Your task to perform on an android device: change notification settings in the gmail app Image 0: 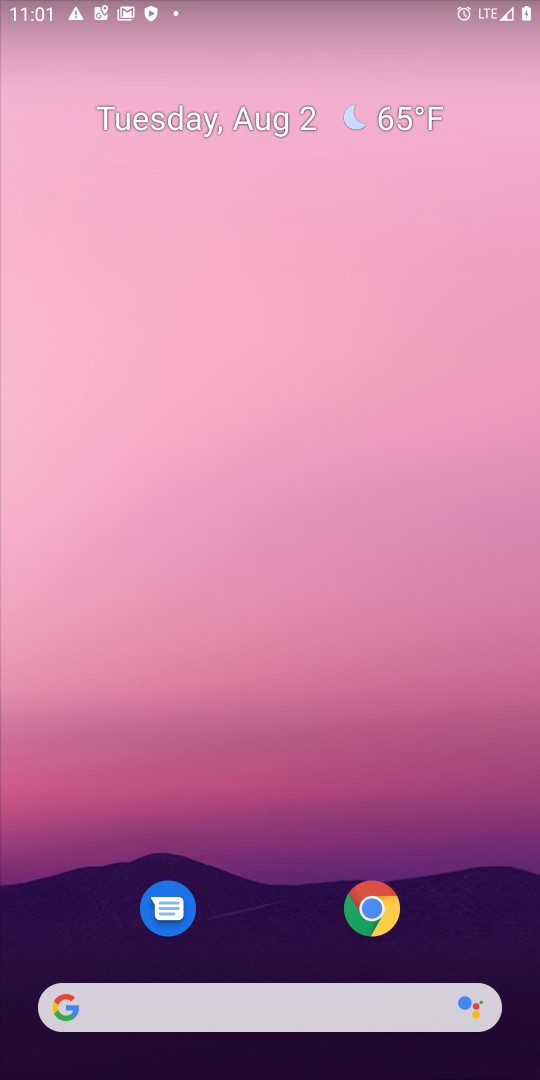
Step 0: drag from (246, 698) to (242, 181)
Your task to perform on an android device: change notification settings in the gmail app Image 1: 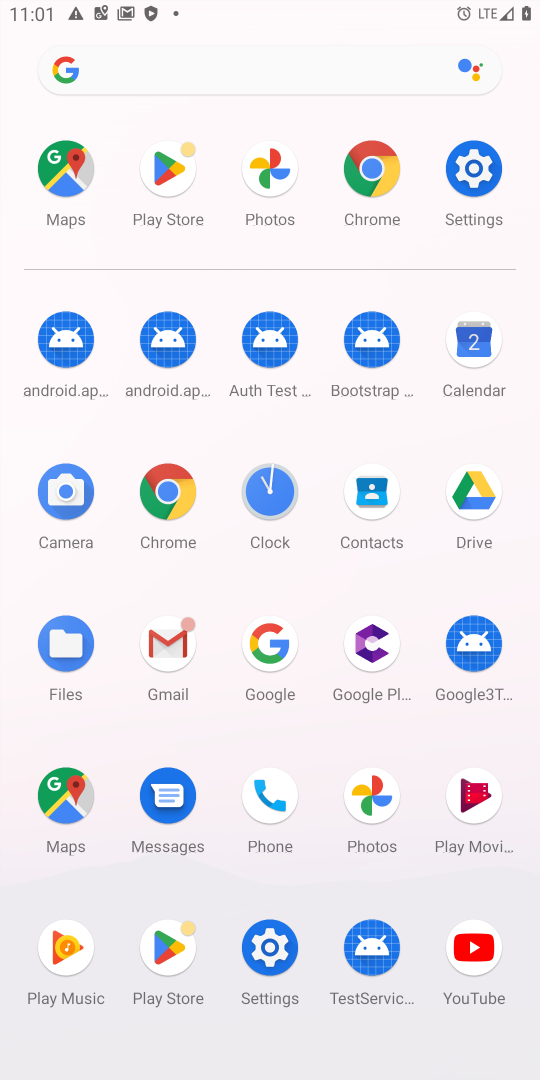
Step 1: click (176, 663)
Your task to perform on an android device: change notification settings in the gmail app Image 2: 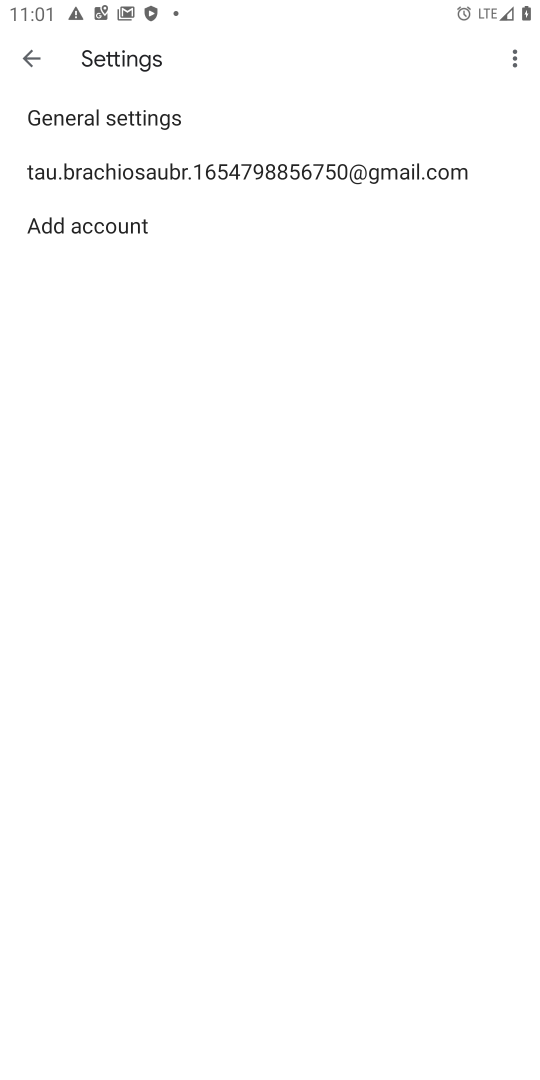
Step 2: click (307, 159)
Your task to perform on an android device: change notification settings in the gmail app Image 3: 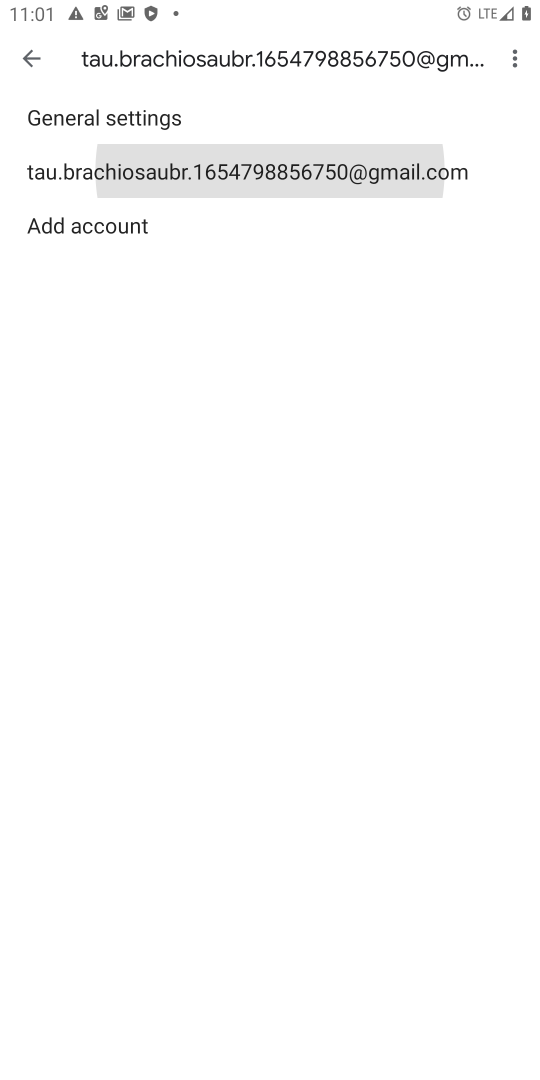
Step 3: click (307, 159)
Your task to perform on an android device: change notification settings in the gmail app Image 4: 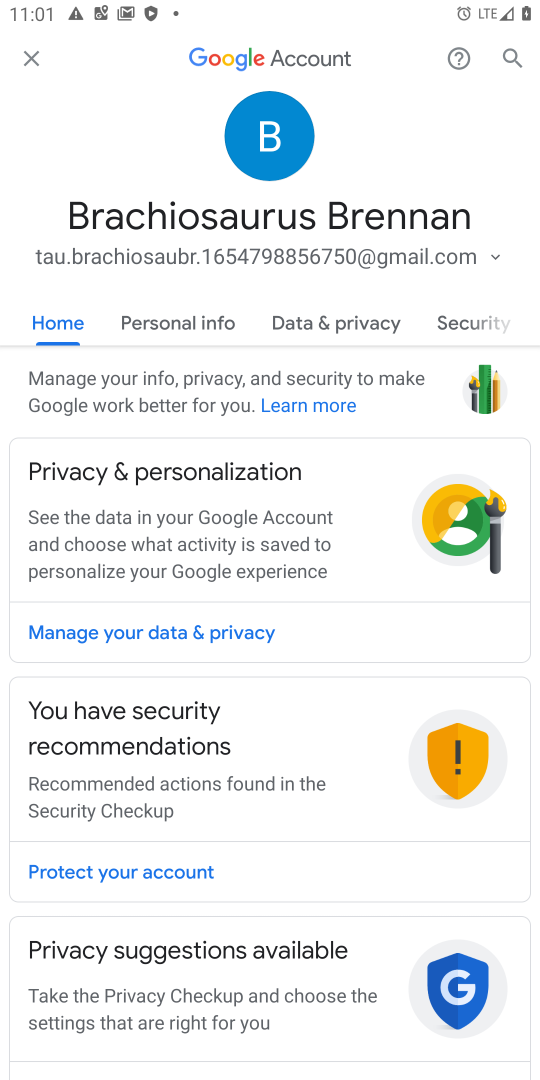
Step 4: press back button
Your task to perform on an android device: change notification settings in the gmail app Image 5: 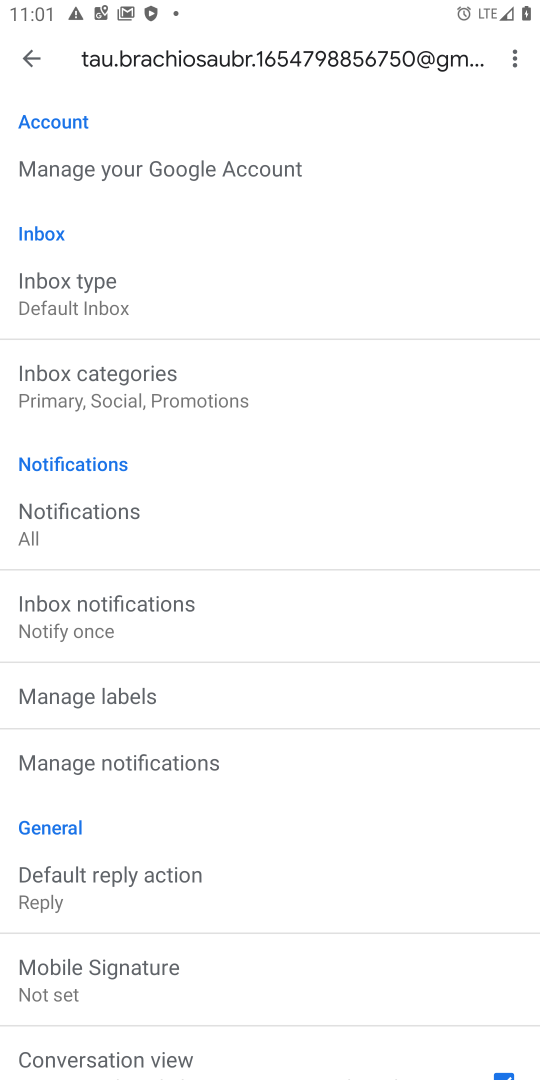
Step 5: click (179, 756)
Your task to perform on an android device: change notification settings in the gmail app Image 6: 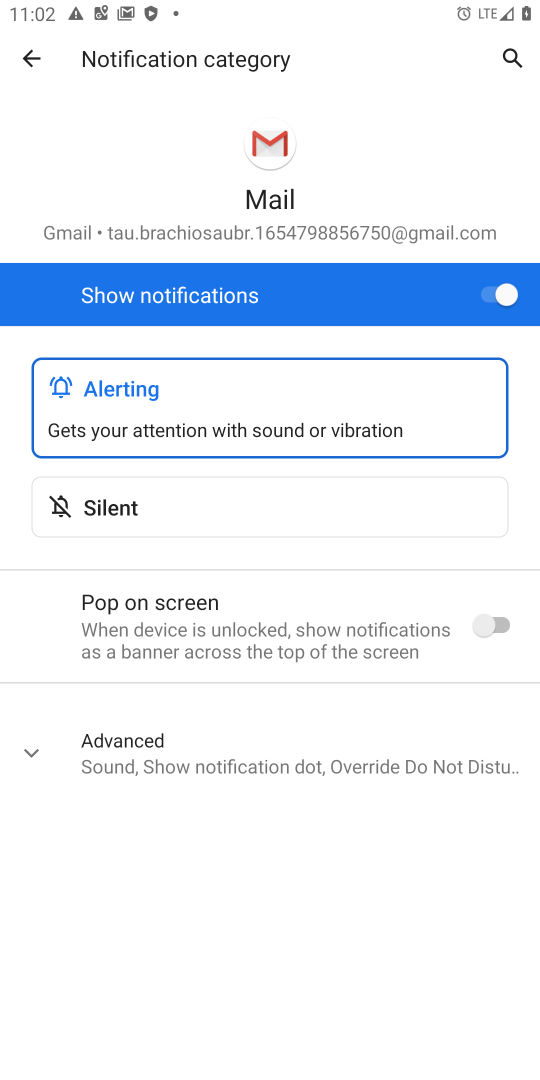
Step 6: click (504, 304)
Your task to perform on an android device: change notification settings in the gmail app Image 7: 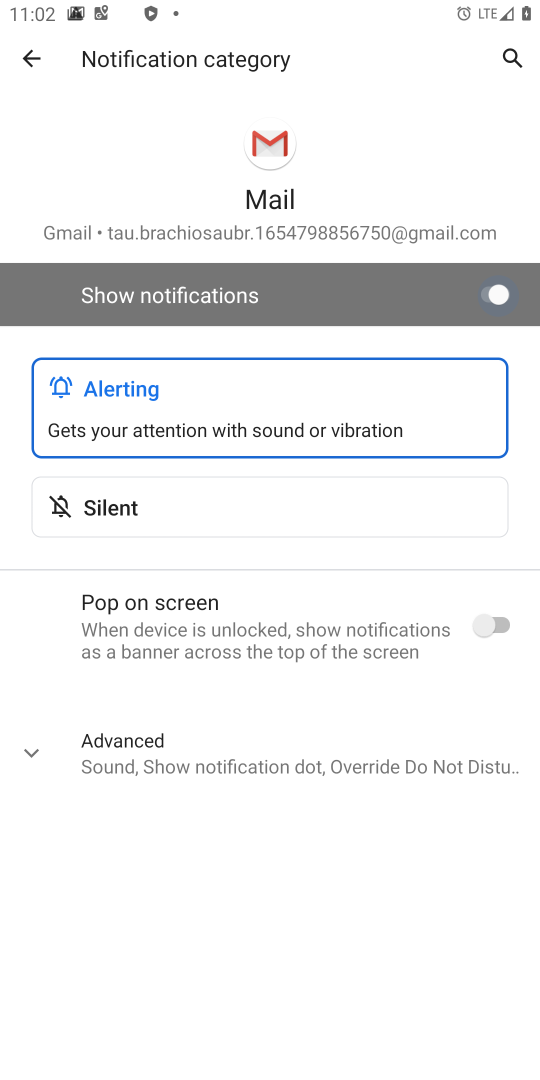
Step 7: task complete